Your task to perform on an android device: Search for Mexican restaurants on Maps Image 0: 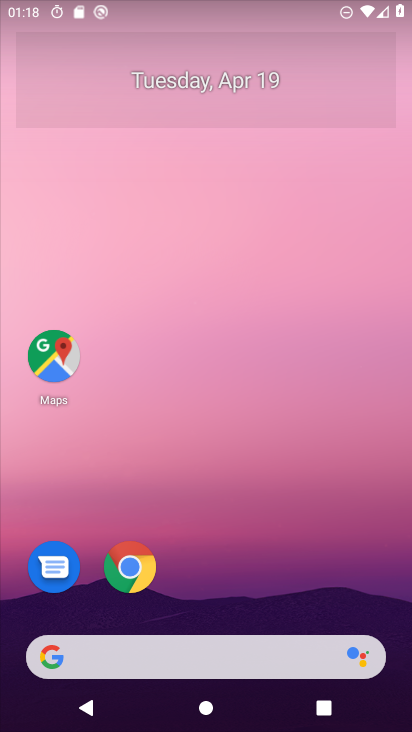
Step 0: drag from (272, 558) to (298, 117)
Your task to perform on an android device: Search for Mexican restaurants on Maps Image 1: 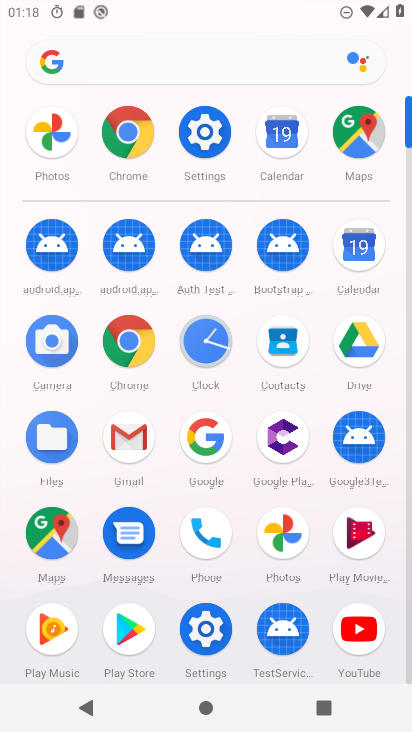
Step 1: click (48, 528)
Your task to perform on an android device: Search for Mexican restaurants on Maps Image 2: 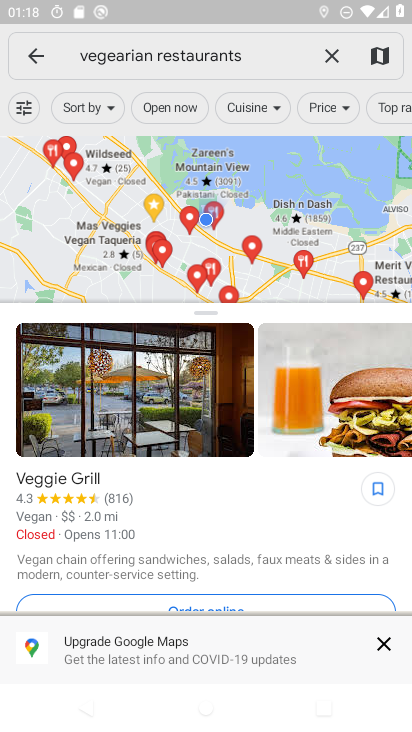
Step 2: click (268, 56)
Your task to perform on an android device: Search for Mexican restaurants on Maps Image 3: 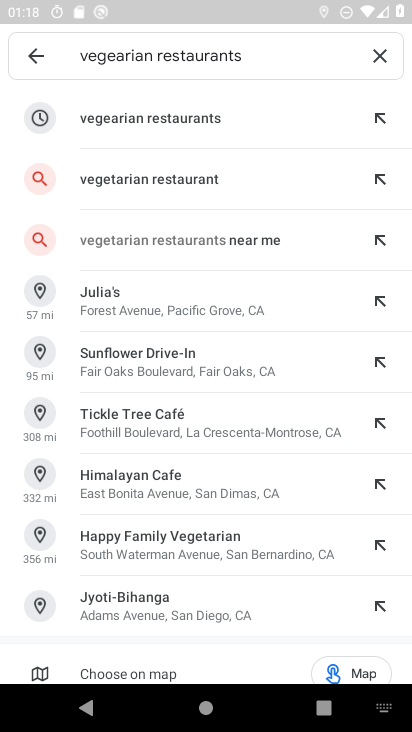
Step 3: click (379, 50)
Your task to perform on an android device: Search for Mexican restaurants on Maps Image 4: 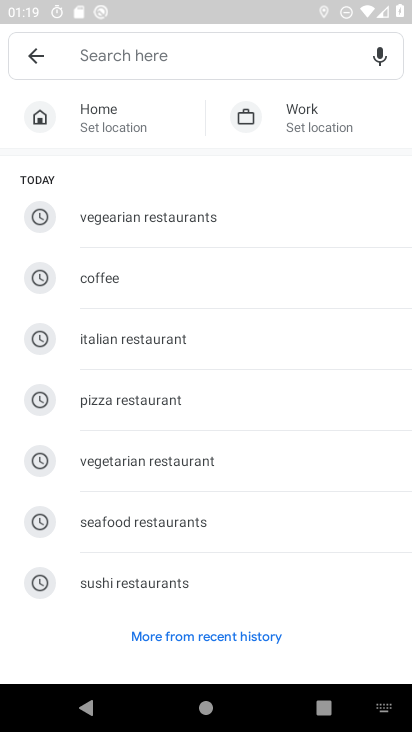
Step 4: type "Mexican restaurants"
Your task to perform on an android device: Search for Mexican restaurants on Maps Image 5: 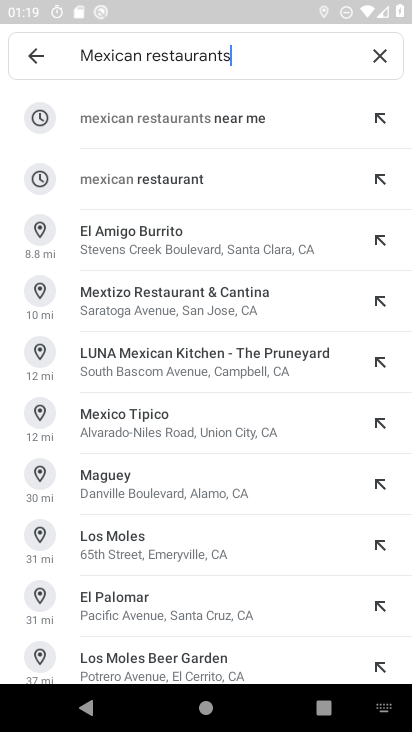
Step 5: press enter
Your task to perform on an android device: Search for Mexican restaurants on Maps Image 6: 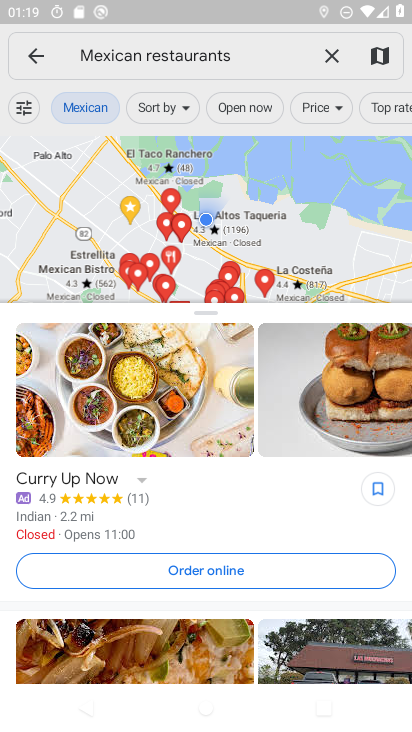
Step 6: task complete